Your task to perform on an android device: Open battery settings Image 0: 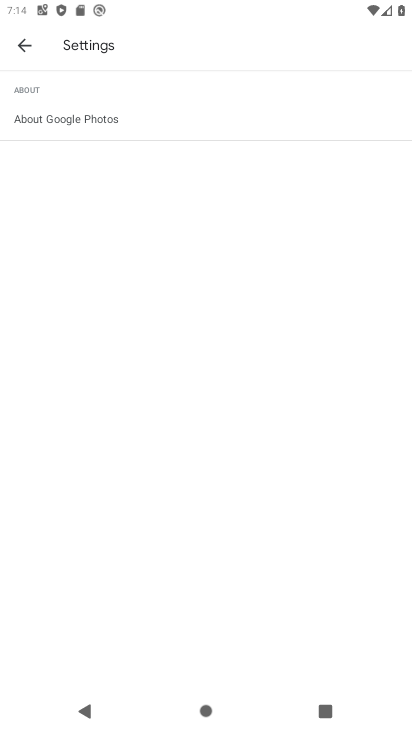
Step 0: press home button
Your task to perform on an android device: Open battery settings Image 1: 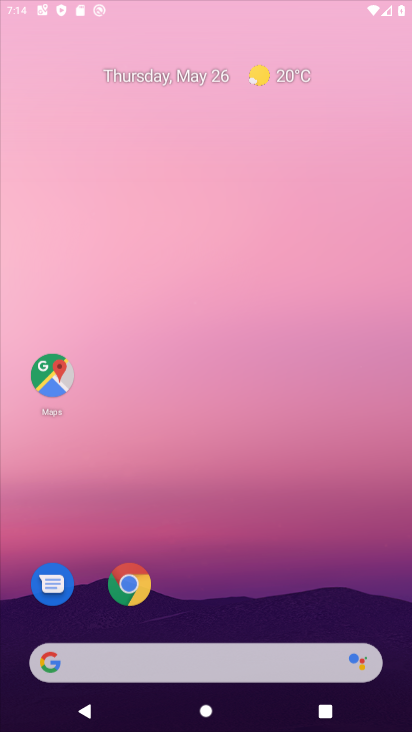
Step 1: drag from (257, 573) to (10, 639)
Your task to perform on an android device: Open battery settings Image 2: 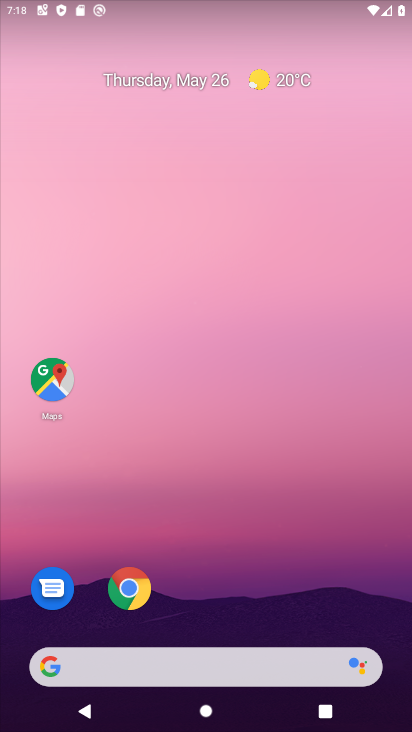
Step 2: drag from (235, 598) to (161, 33)
Your task to perform on an android device: Open battery settings Image 3: 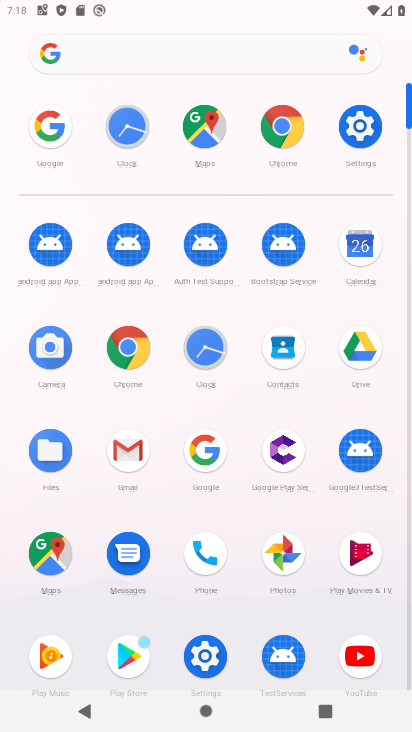
Step 3: click (373, 121)
Your task to perform on an android device: Open battery settings Image 4: 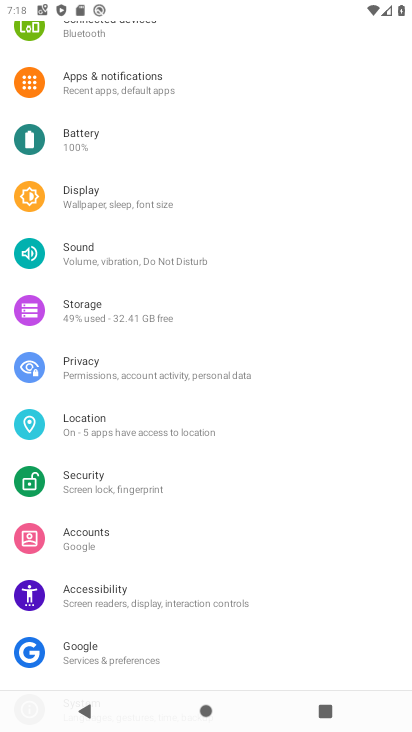
Step 4: click (117, 134)
Your task to perform on an android device: Open battery settings Image 5: 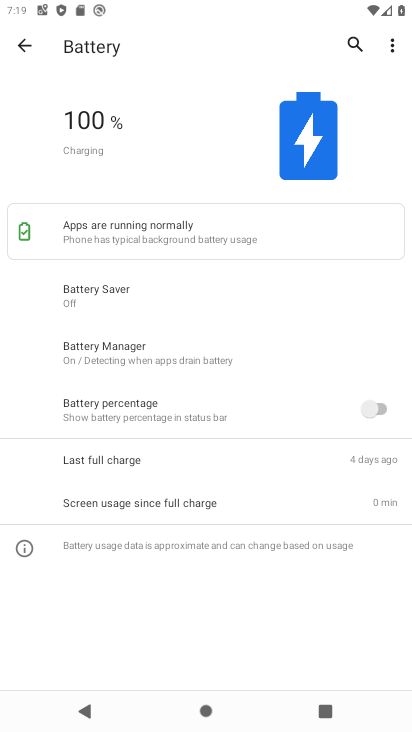
Step 5: task complete